Your task to perform on an android device: turn off data saver in the chrome app Image 0: 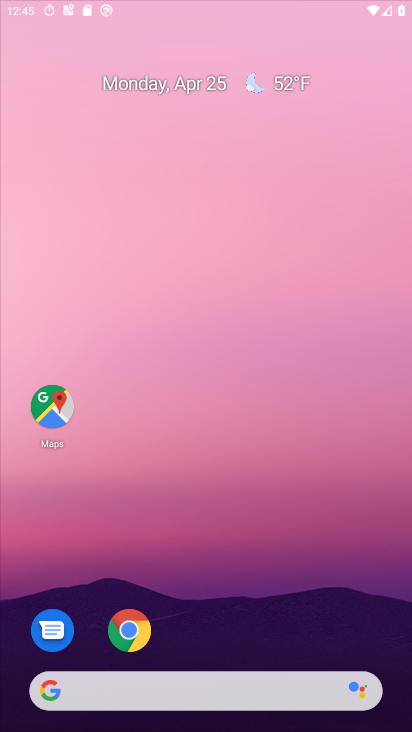
Step 0: click (219, 30)
Your task to perform on an android device: turn off data saver in the chrome app Image 1: 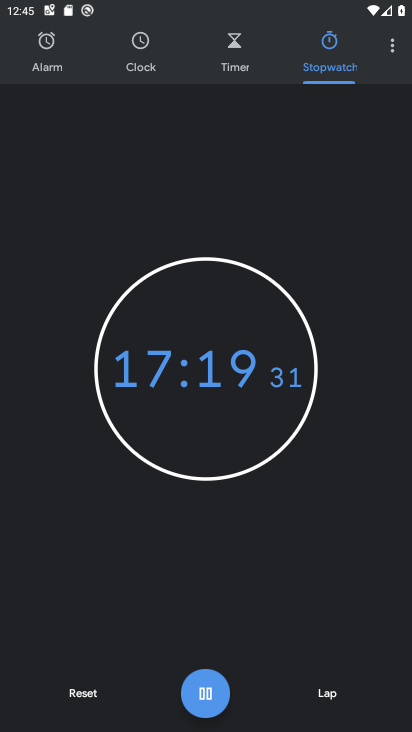
Step 1: drag from (261, 528) to (258, 284)
Your task to perform on an android device: turn off data saver in the chrome app Image 2: 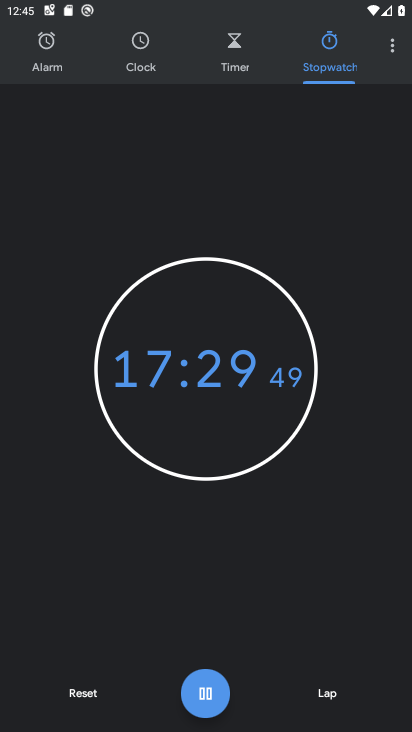
Step 2: drag from (255, 565) to (294, 400)
Your task to perform on an android device: turn off data saver in the chrome app Image 3: 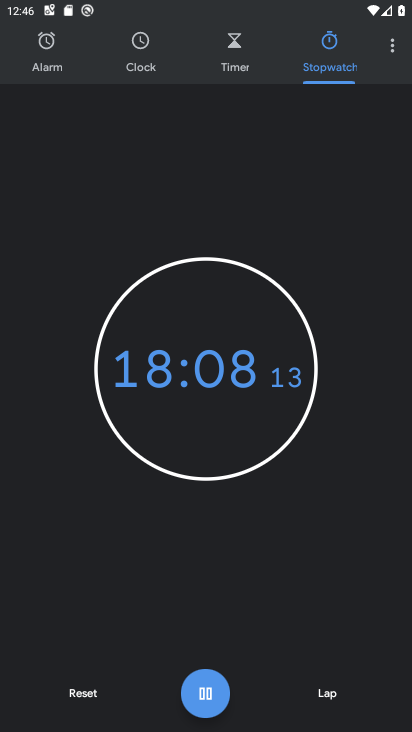
Step 3: drag from (393, 58) to (314, 93)
Your task to perform on an android device: turn off data saver in the chrome app Image 4: 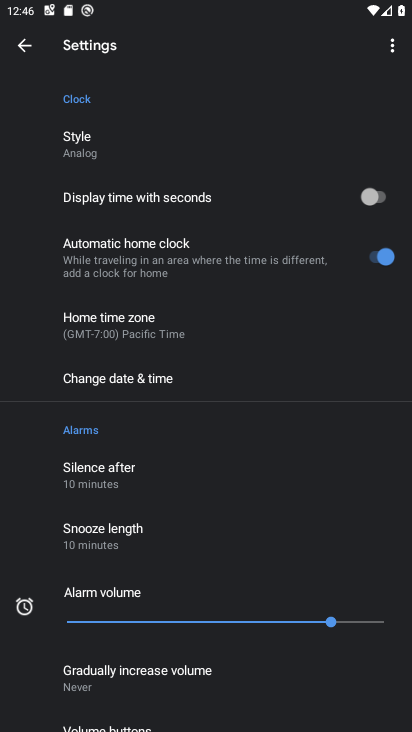
Step 4: drag from (172, 543) to (246, 123)
Your task to perform on an android device: turn off data saver in the chrome app Image 5: 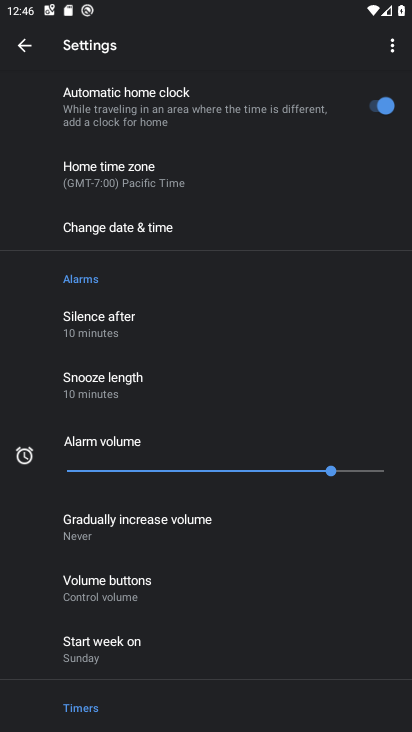
Step 5: drag from (173, 612) to (261, 272)
Your task to perform on an android device: turn off data saver in the chrome app Image 6: 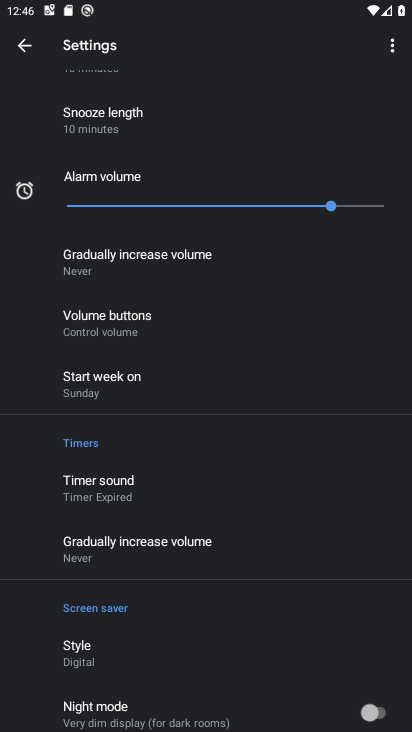
Step 6: click (31, 36)
Your task to perform on an android device: turn off data saver in the chrome app Image 7: 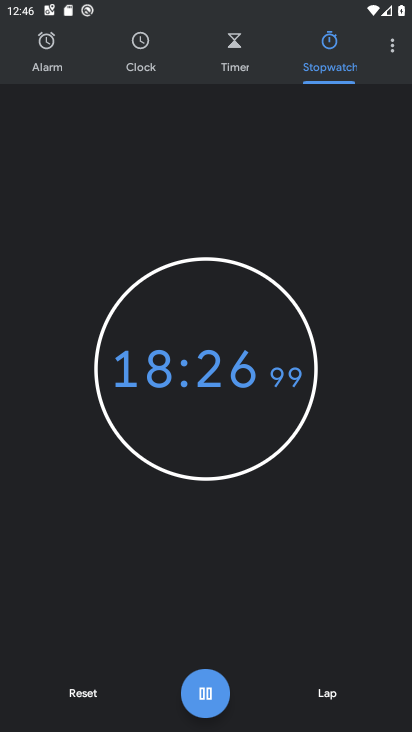
Step 7: press home button
Your task to perform on an android device: turn off data saver in the chrome app Image 8: 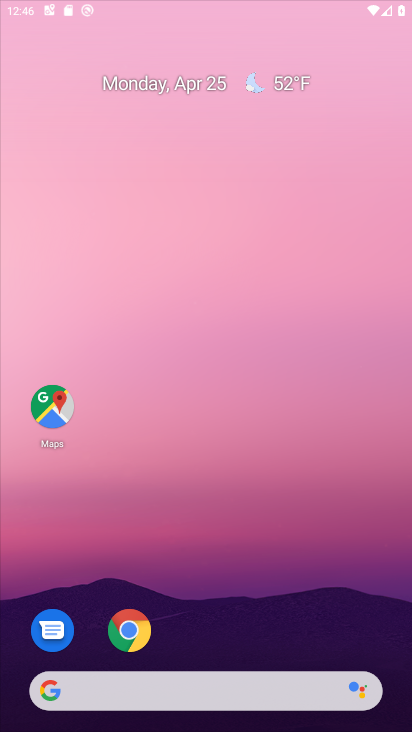
Step 8: drag from (180, 616) to (206, 99)
Your task to perform on an android device: turn off data saver in the chrome app Image 9: 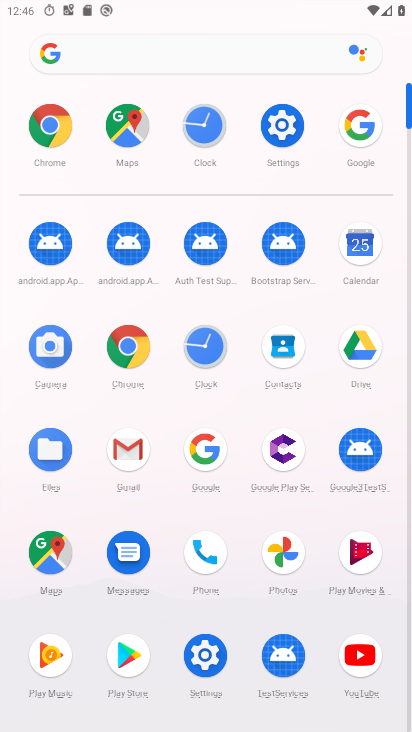
Step 9: click (134, 339)
Your task to perform on an android device: turn off data saver in the chrome app Image 10: 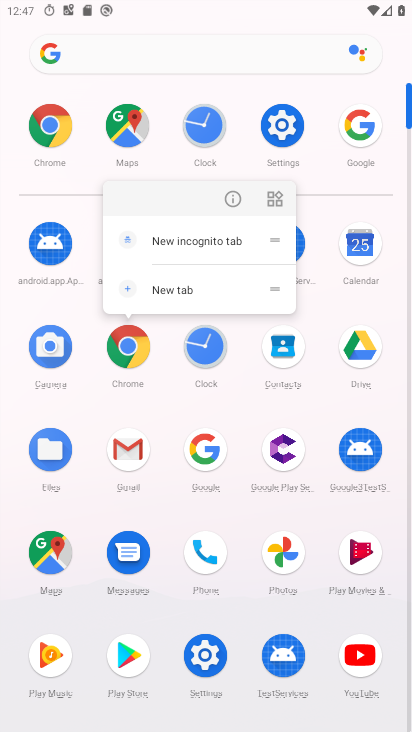
Step 10: click (234, 195)
Your task to perform on an android device: turn off data saver in the chrome app Image 11: 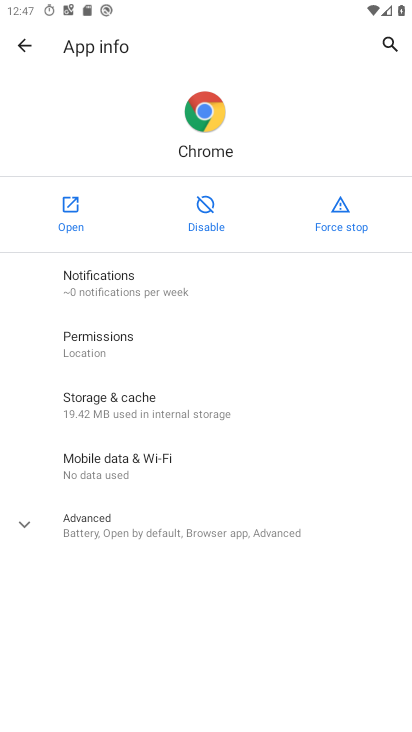
Step 11: click (77, 206)
Your task to perform on an android device: turn off data saver in the chrome app Image 12: 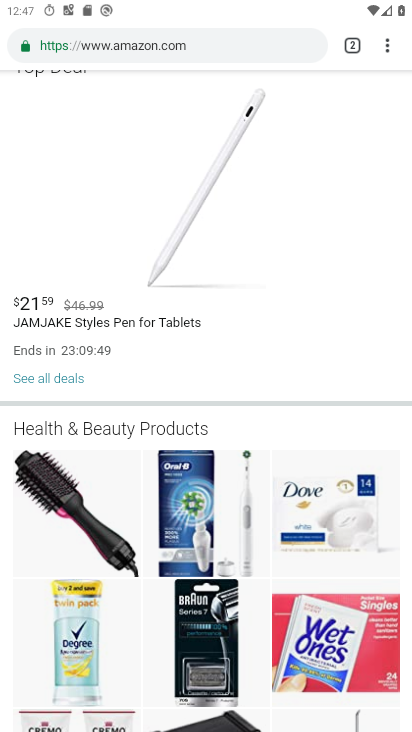
Step 12: drag from (389, 54) to (276, 586)
Your task to perform on an android device: turn off data saver in the chrome app Image 13: 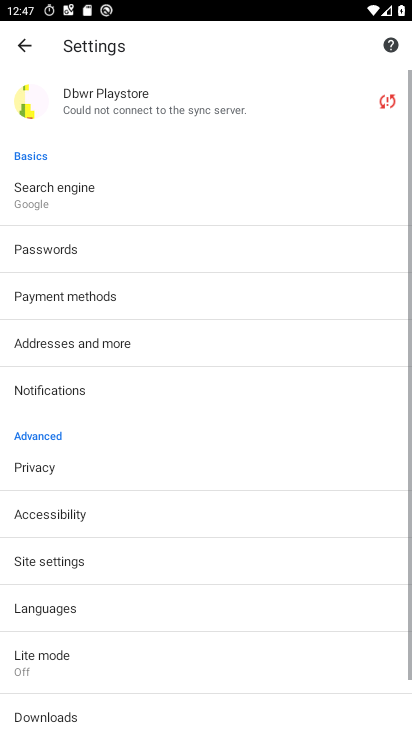
Step 13: drag from (218, 606) to (251, 225)
Your task to perform on an android device: turn off data saver in the chrome app Image 14: 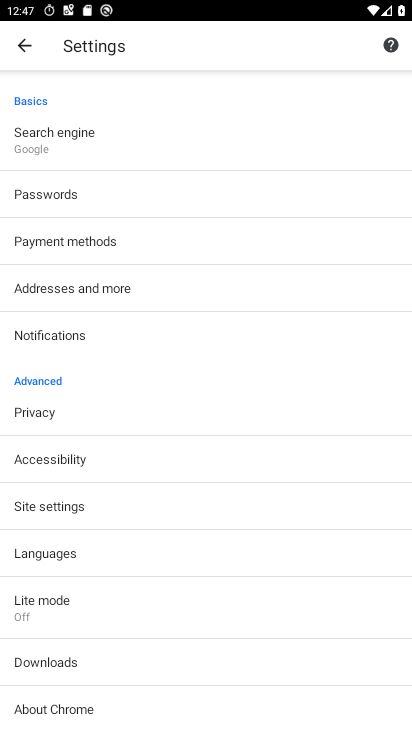
Step 14: drag from (160, 616) to (209, 292)
Your task to perform on an android device: turn off data saver in the chrome app Image 15: 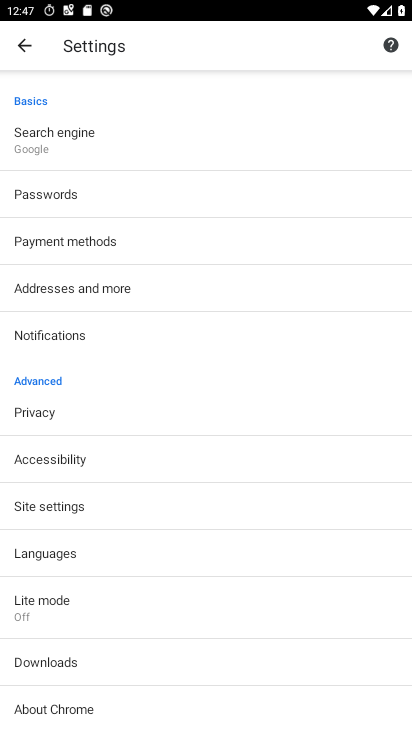
Step 15: drag from (155, 567) to (186, 319)
Your task to perform on an android device: turn off data saver in the chrome app Image 16: 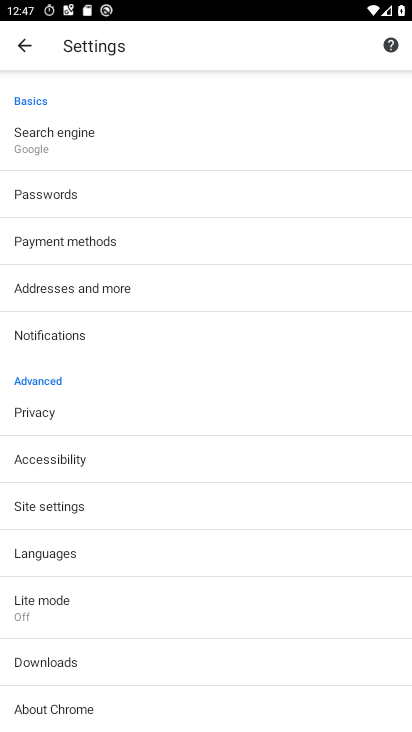
Step 16: click (107, 603)
Your task to perform on an android device: turn off data saver in the chrome app Image 17: 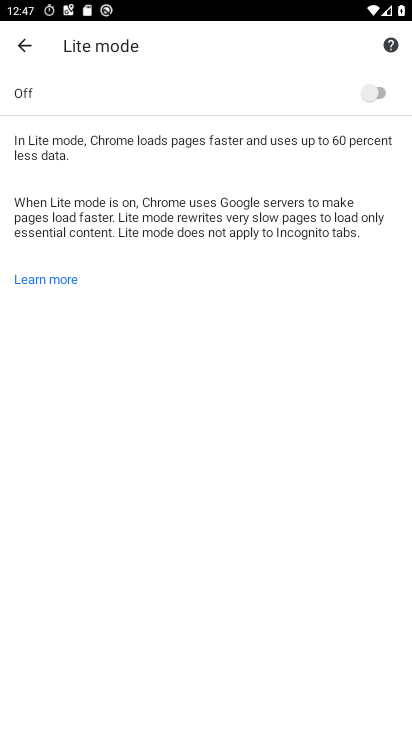
Step 17: task complete